Your task to perform on an android device: open chrome and create a bookmark for the current page Image 0: 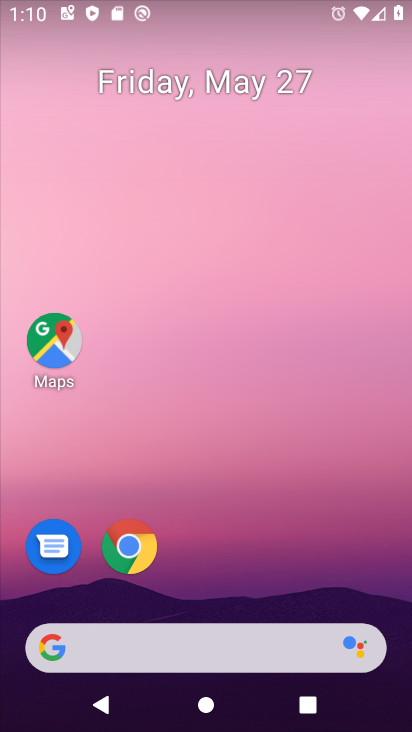
Step 0: drag from (295, 548) to (248, 138)
Your task to perform on an android device: open chrome and create a bookmark for the current page Image 1: 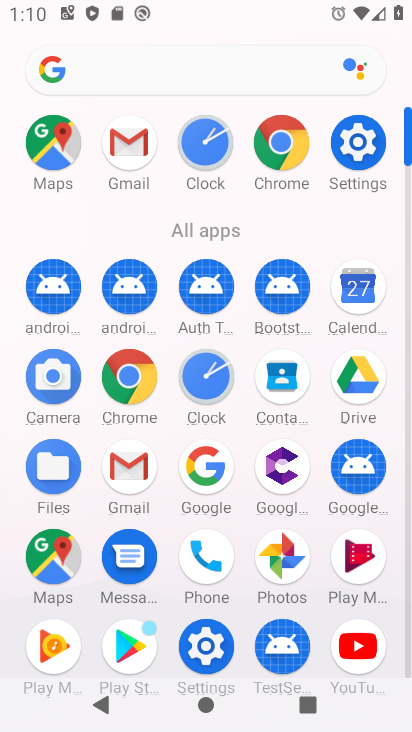
Step 1: click (275, 153)
Your task to perform on an android device: open chrome and create a bookmark for the current page Image 2: 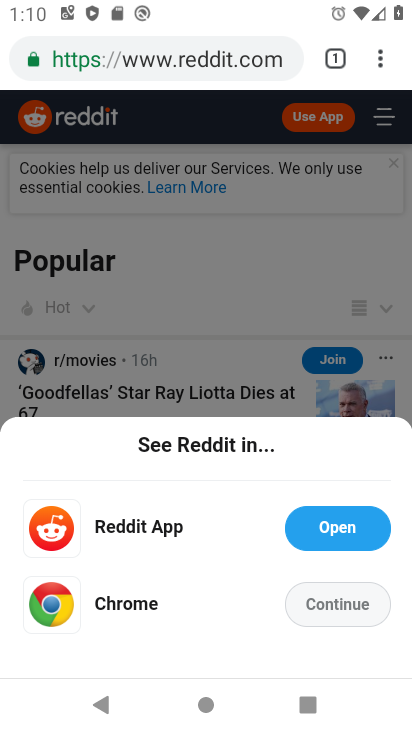
Step 2: click (387, 67)
Your task to perform on an android device: open chrome and create a bookmark for the current page Image 3: 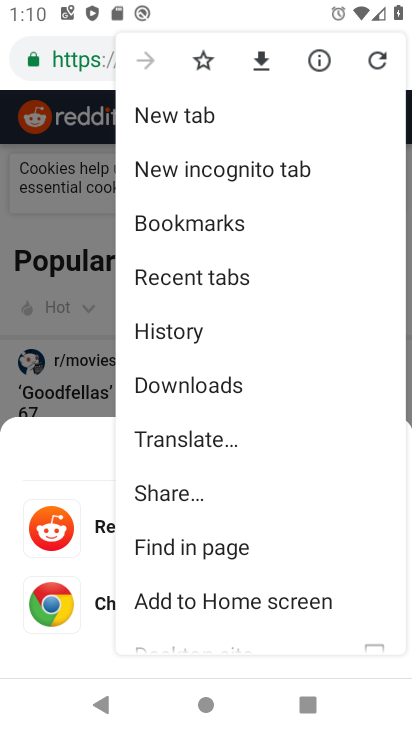
Step 3: click (194, 230)
Your task to perform on an android device: open chrome and create a bookmark for the current page Image 4: 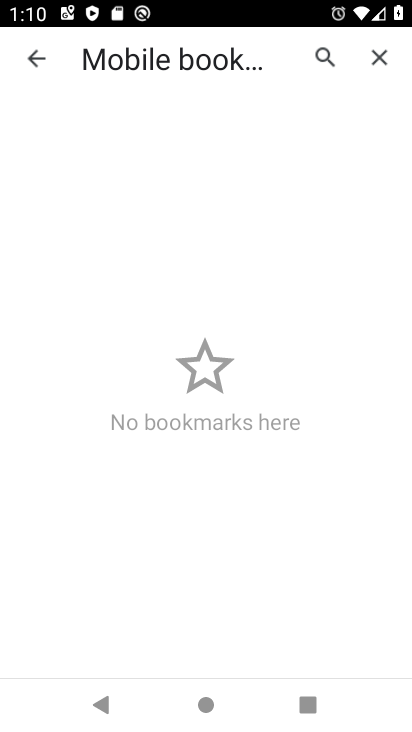
Step 4: task complete